Your task to perform on an android device: check google app version Image 0: 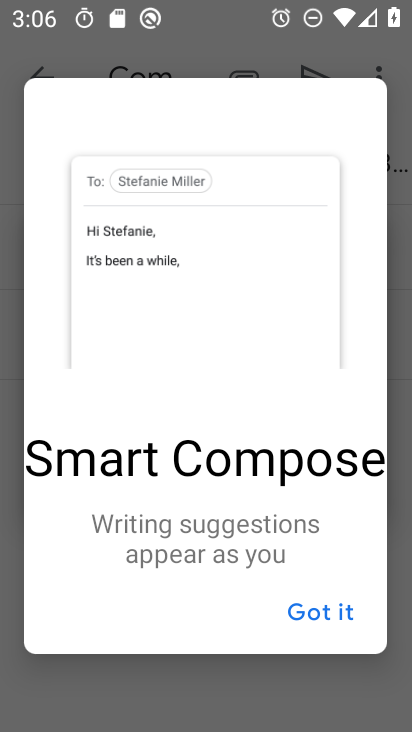
Step 0: press home button
Your task to perform on an android device: check google app version Image 1: 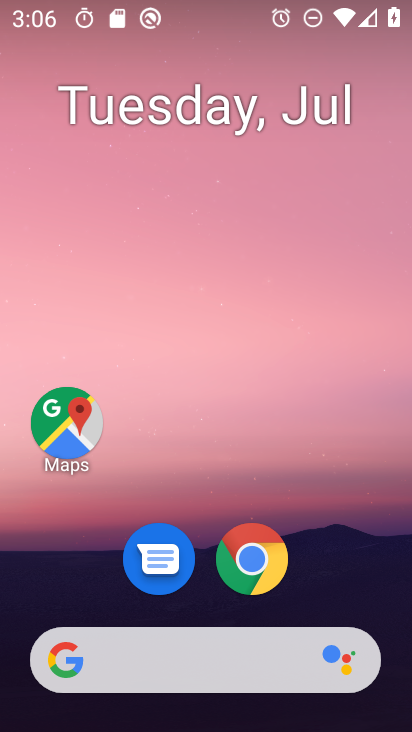
Step 1: drag from (352, 571) to (389, 108)
Your task to perform on an android device: check google app version Image 2: 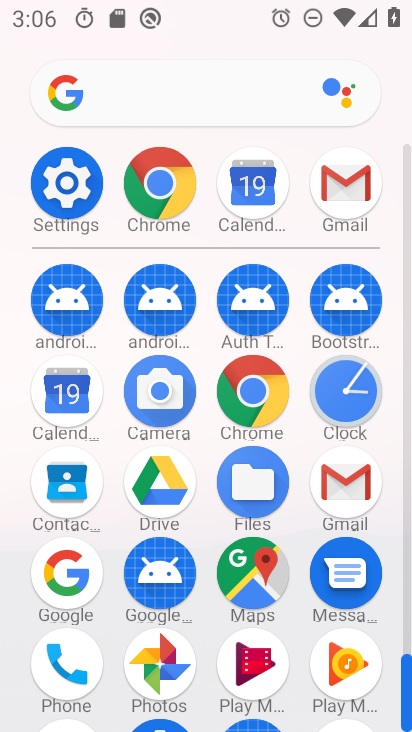
Step 2: click (80, 575)
Your task to perform on an android device: check google app version Image 3: 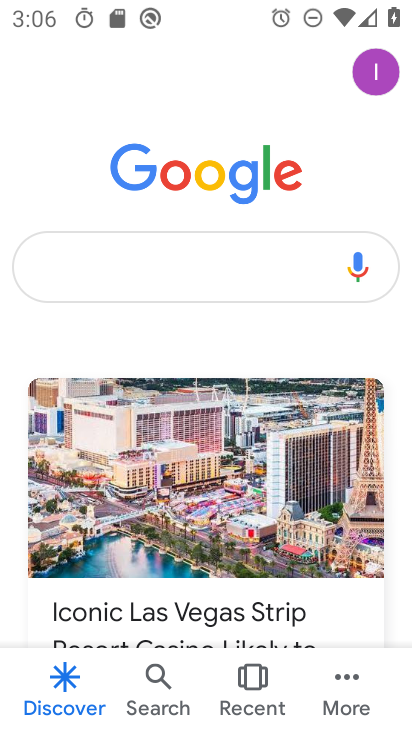
Step 3: click (338, 690)
Your task to perform on an android device: check google app version Image 4: 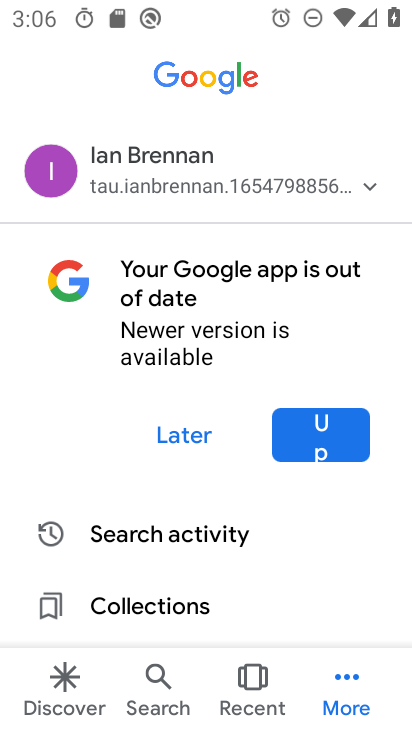
Step 4: drag from (362, 583) to (359, 407)
Your task to perform on an android device: check google app version Image 5: 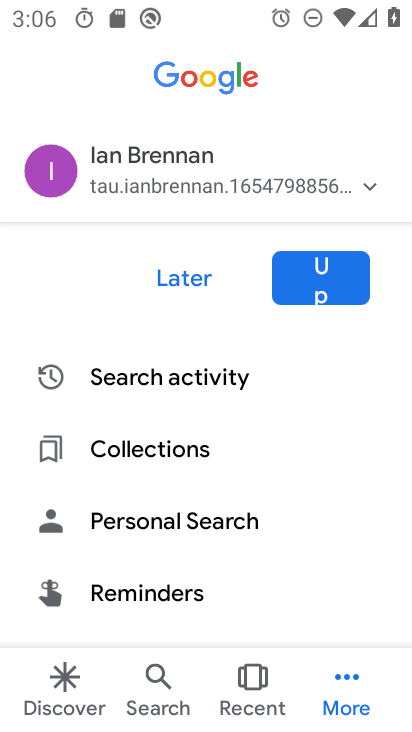
Step 5: drag from (311, 591) to (339, 402)
Your task to perform on an android device: check google app version Image 6: 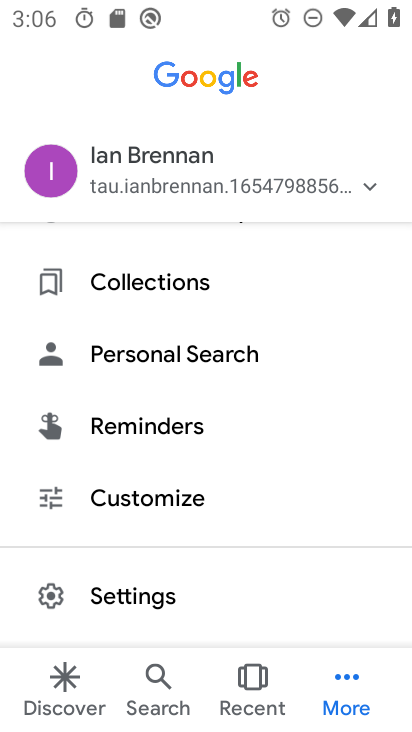
Step 6: click (192, 589)
Your task to perform on an android device: check google app version Image 7: 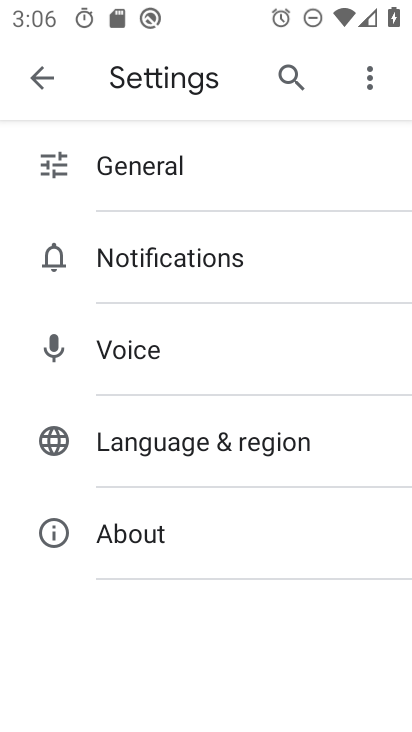
Step 7: click (199, 534)
Your task to perform on an android device: check google app version Image 8: 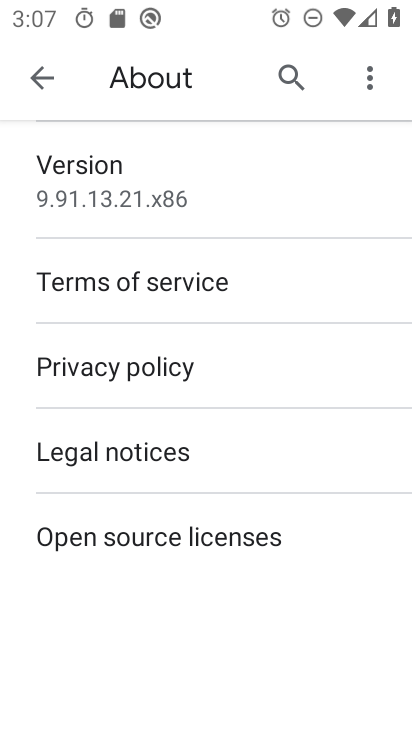
Step 8: task complete